Your task to perform on an android device: toggle location history Image 0: 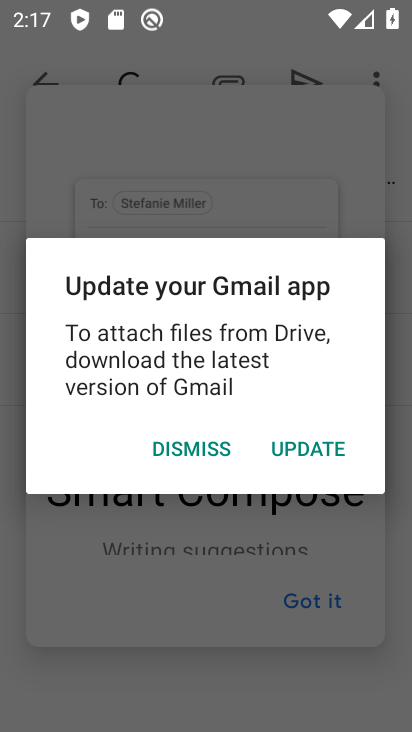
Step 0: press home button
Your task to perform on an android device: toggle location history Image 1: 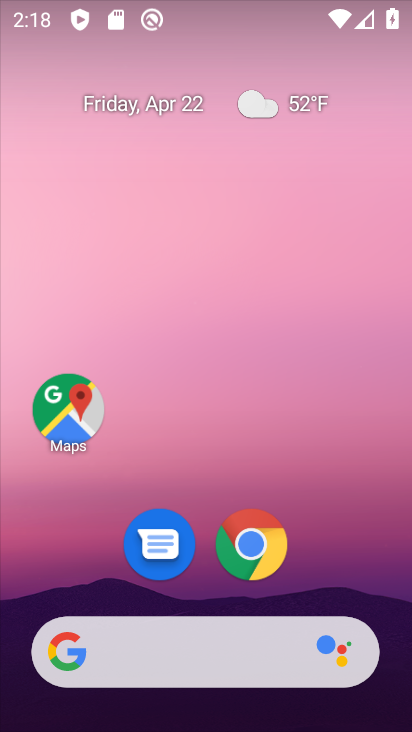
Step 1: drag from (201, 608) to (330, 52)
Your task to perform on an android device: toggle location history Image 2: 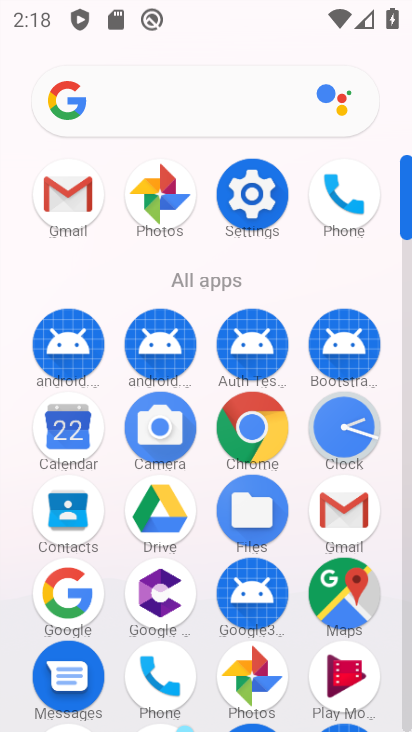
Step 2: click (253, 189)
Your task to perform on an android device: toggle location history Image 3: 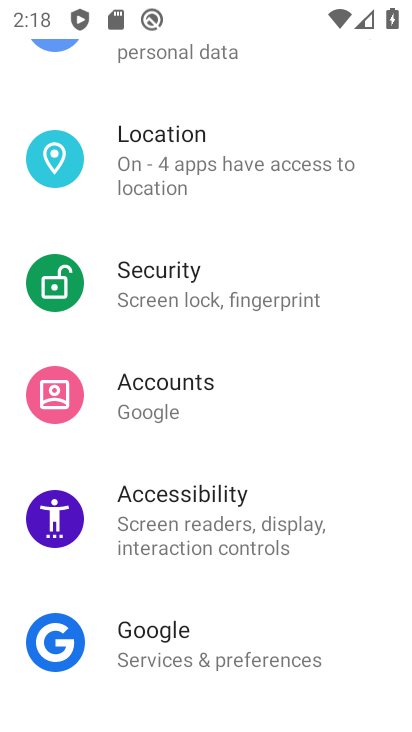
Step 3: click (194, 196)
Your task to perform on an android device: toggle location history Image 4: 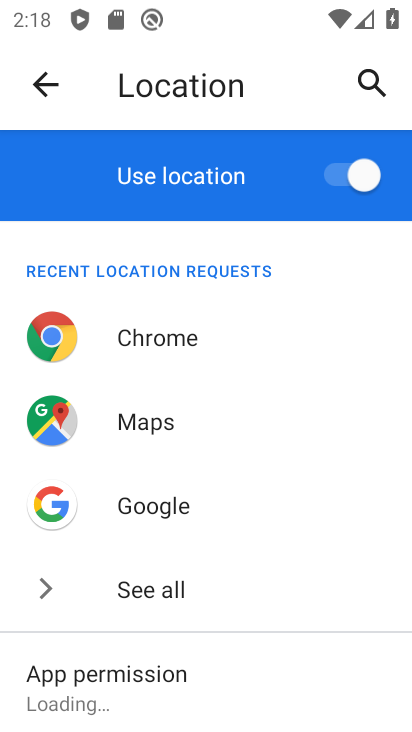
Step 4: drag from (114, 667) to (215, 235)
Your task to perform on an android device: toggle location history Image 5: 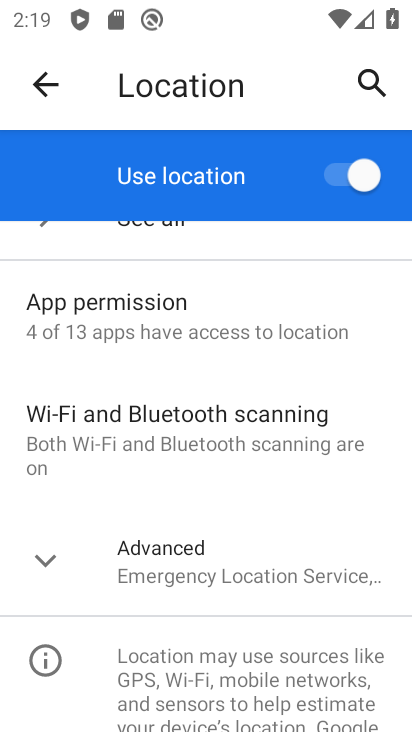
Step 5: click (152, 588)
Your task to perform on an android device: toggle location history Image 6: 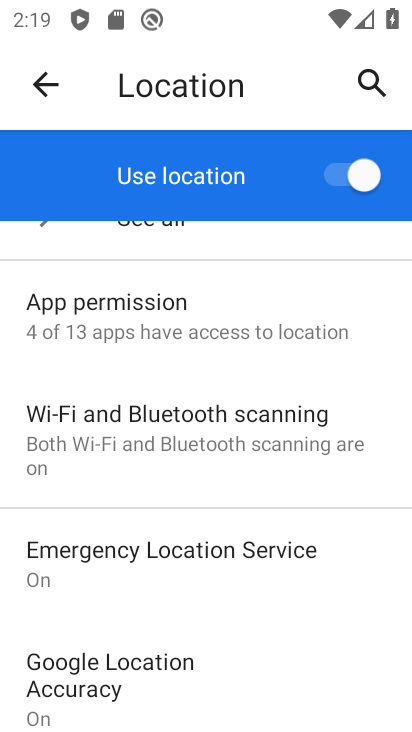
Step 6: drag from (152, 588) to (219, 310)
Your task to perform on an android device: toggle location history Image 7: 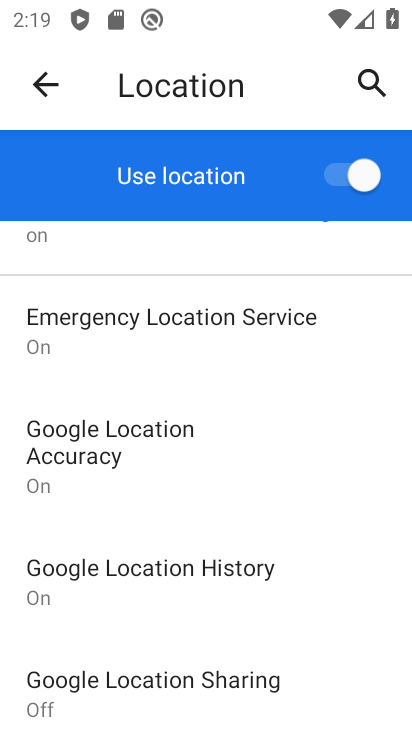
Step 7: drag from (99, 706) to (181, 386)
Your task to perform on an android device: toggle location history Image 8: 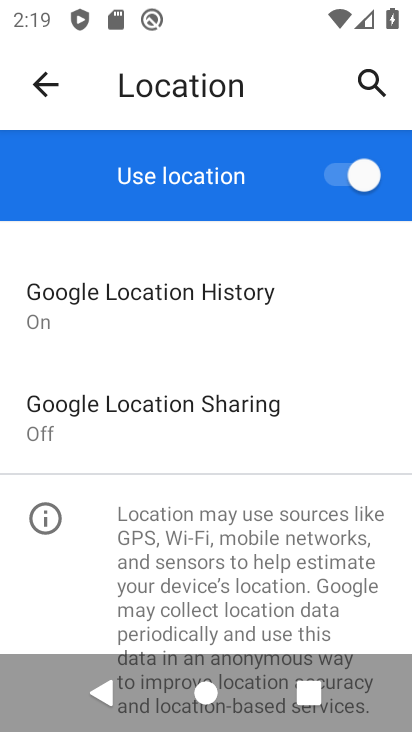
Step 8: click (233, 305)
Your task to perform on an android device: toggle location history Image 9: 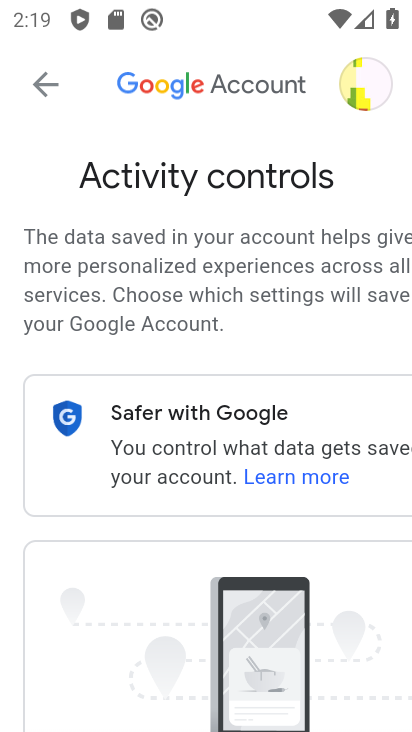
Step 9: drag from (142, 604) to (351, 30)
Your task to perform on an android device: toggle location history Image 10: 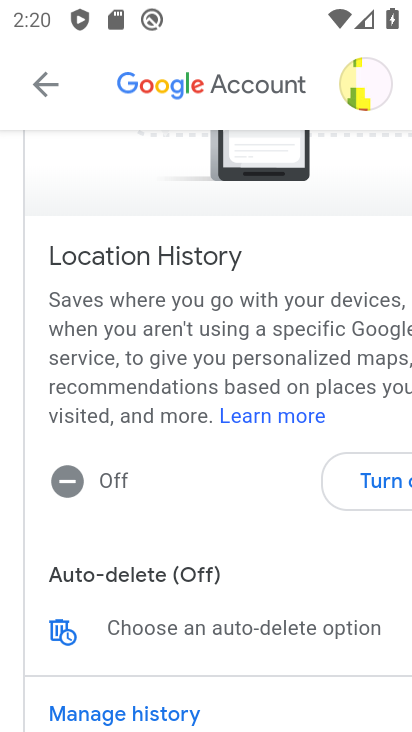
Step 10: click (363, 491)
Your task to perform on an android device: toggle location history Image 11: 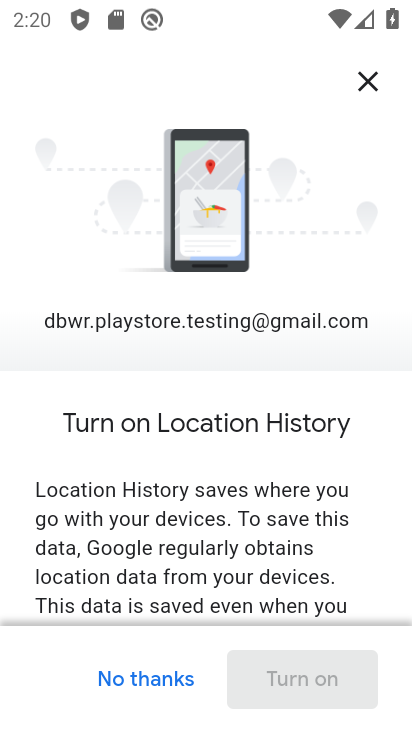
Step 11: drag from (206, 577) to (229, 288)
Your task to perform on an android device: toggle location history Image 12: 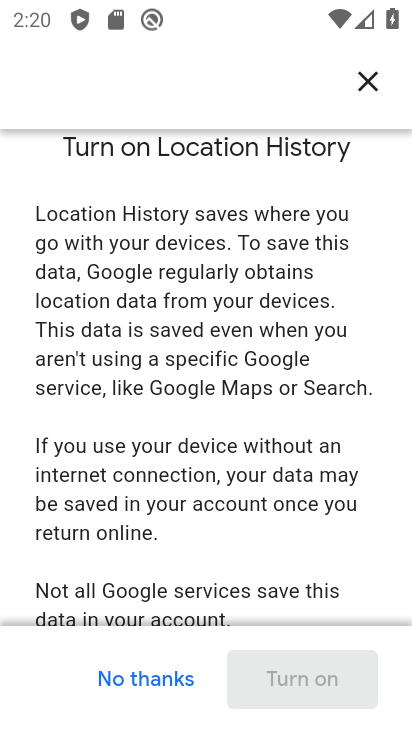
Step 12: drag from (211, 594) to (383, 333)
Your task to perform on an android device: toggle location history Image 13: 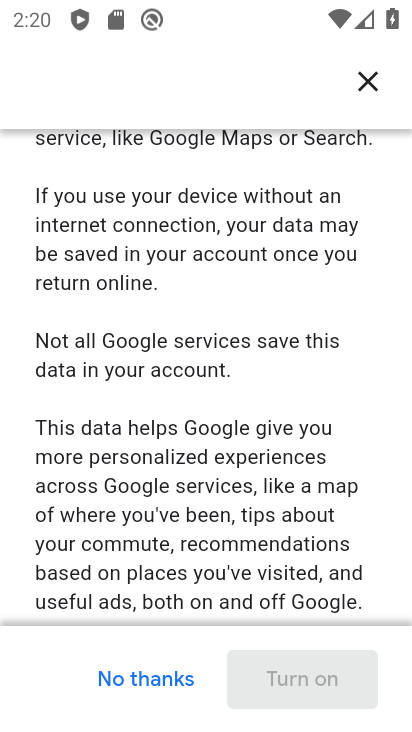
Step 13: drag from (213, 550) to (283, 82)
Your task to perform on an android device: toggle location history Image 14: 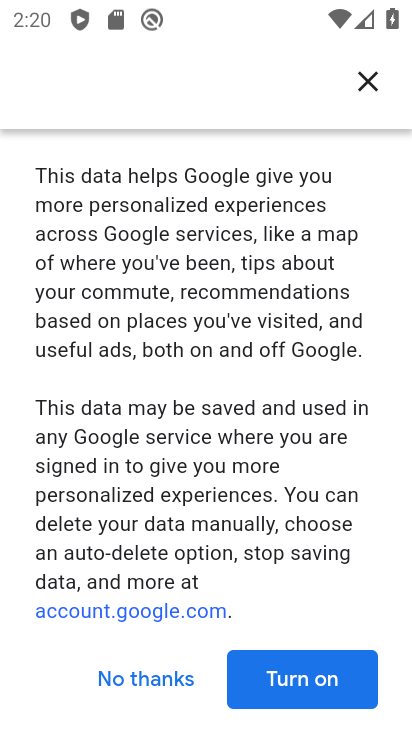
Step 14: click (320, 685)
Your task to perform on an android device: toggle location history Image 15: 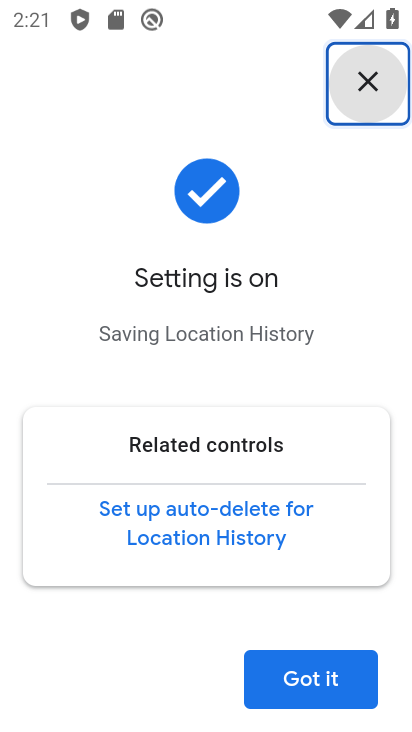
Step 15: click (312, 684)
Your task to perform on an android device: toggle location history Image 16: 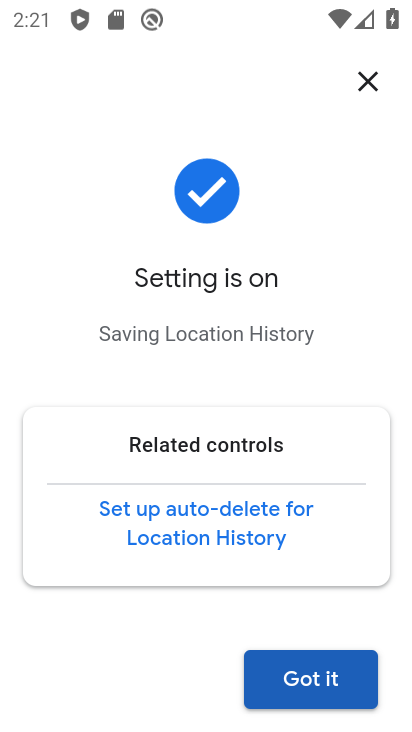
Step 16: click (312, 684)
Your task to perform on an android device: toggle location history Image 17: 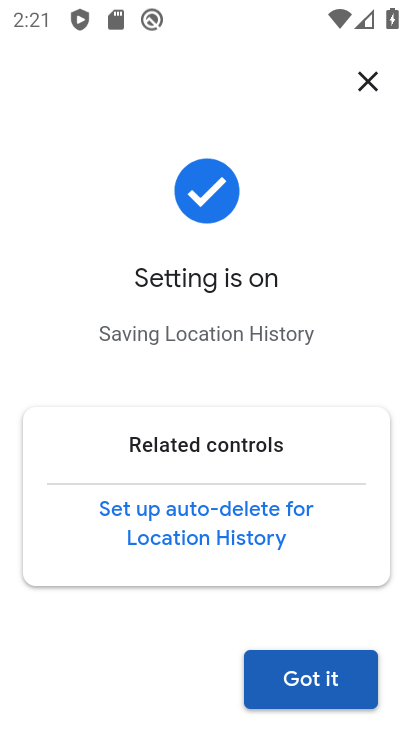
Step 17: click (312, 684)
Your task to perform on an android device: toggle location history Image 18: 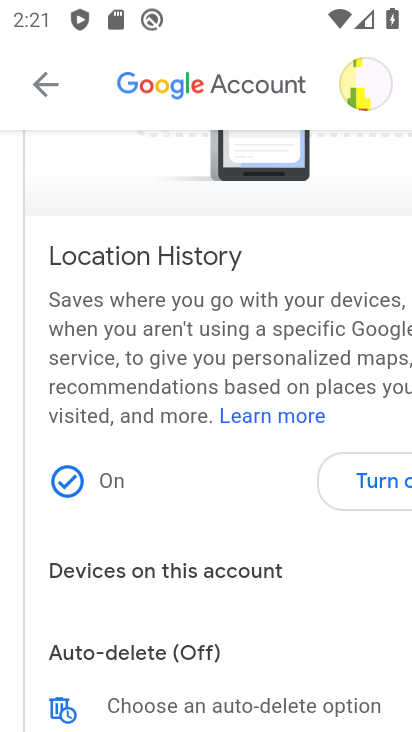
Step 18: task complete